Your task to perform on an android device: Go to CNN.com Image 0: 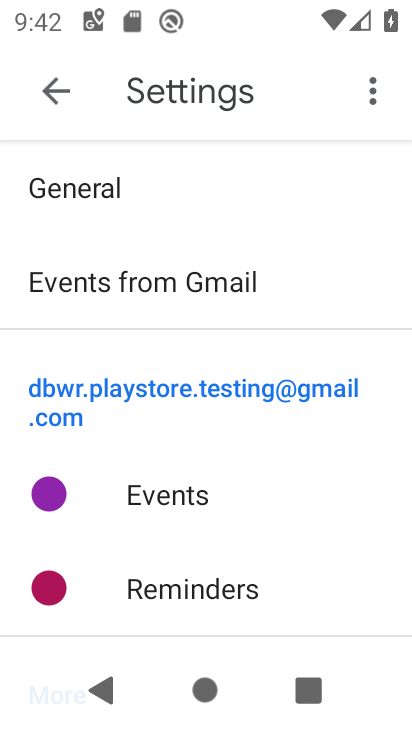
Step 0: press home button
Your task to perform on an android device: Go to CNN.com Image 1: 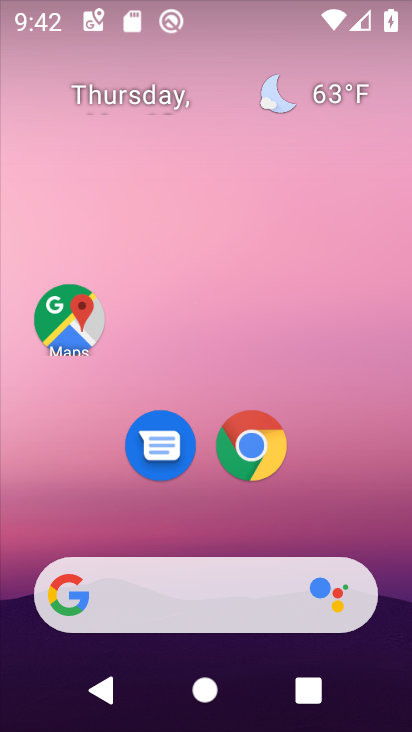
Step 1: drag from (320, 530) to (320, 163)
Your task to perform on an android device: Go to CNN.com Image 2: 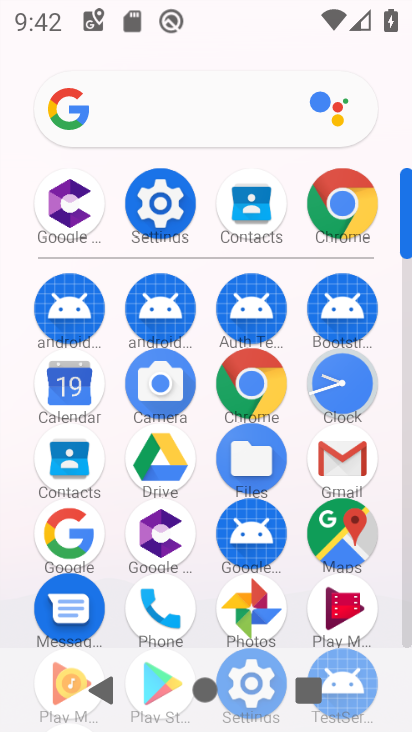
Step 2: click (251, 388)
Your task to perform on an android device: Go to CNN.com Image 3: 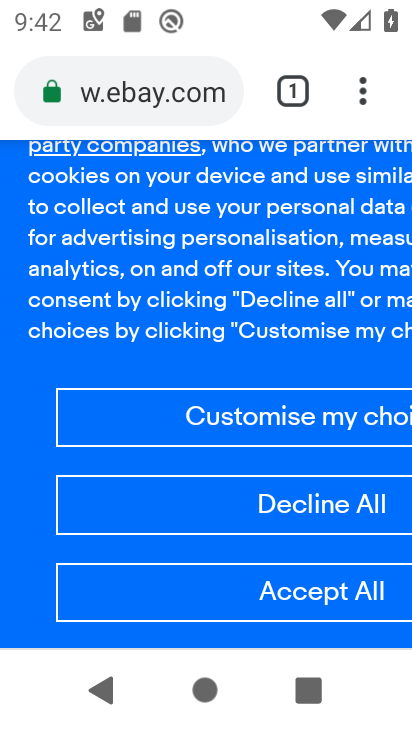
Step 3: click (299, 85)
Your task to perform on an android device: Go to CNN.com Image 4: 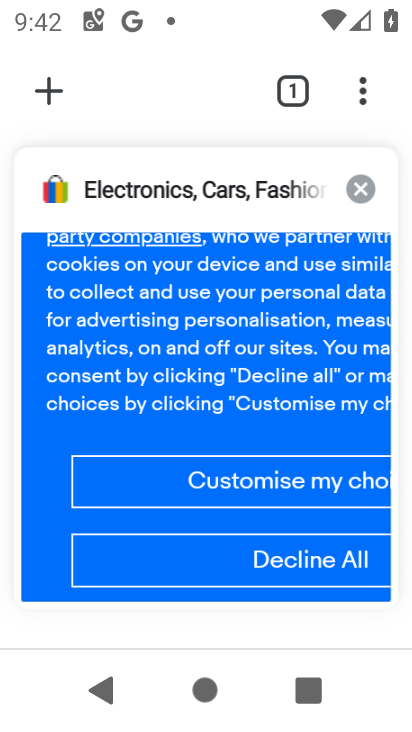
Step 4: click (38, 84)
Your task to perform on an android device: Go to CNN.com Image 5: 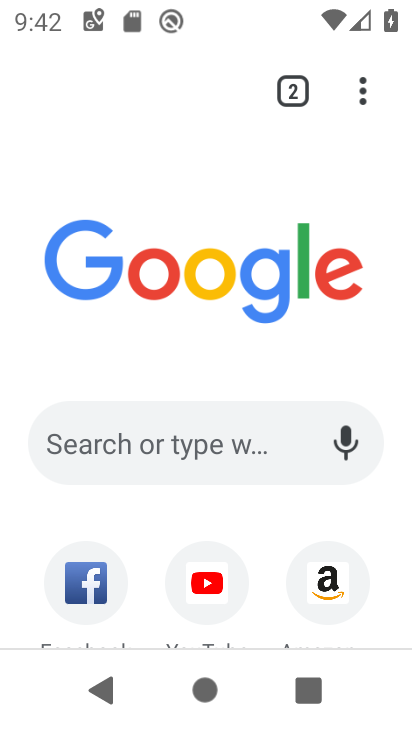
Step 5: click (237, 461)
Your task to perform on an android device: Go to CNN.com Image 6: 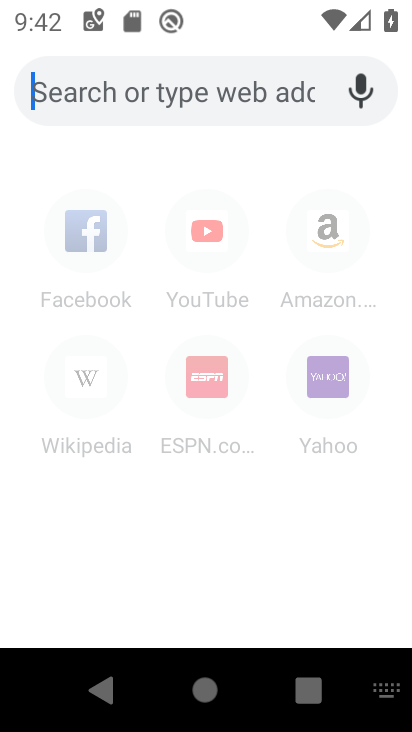
Step 6: type "CNN.com"
Your task to perform on an android device: Go to CNN.com Image 7: 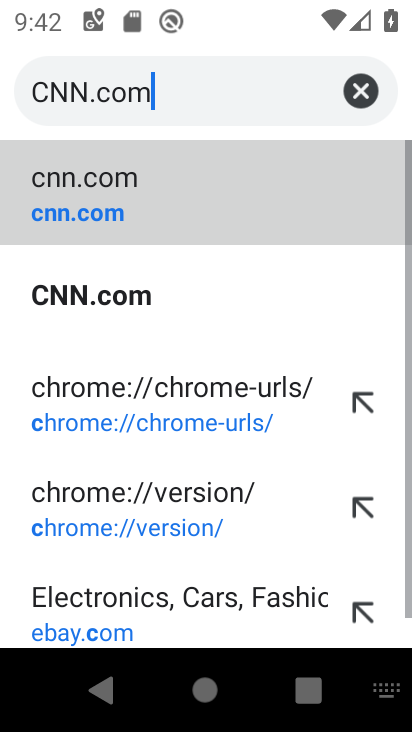
Step 7: type ""
Your task to perform on an android device: Go to CNN.com Image 8: 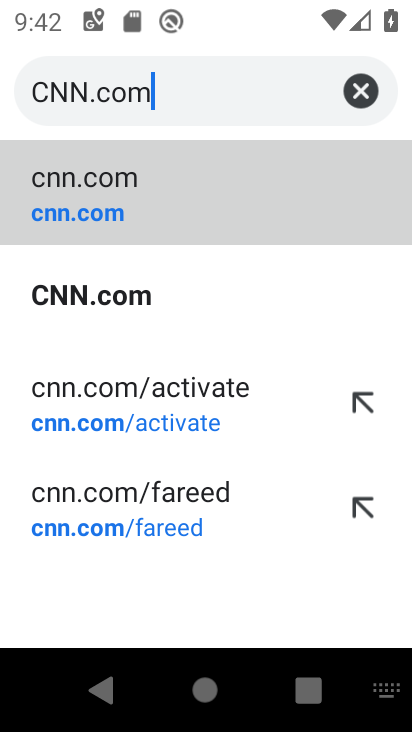
Step 8: click (153, 175)
Your task to perform on an android device: Go to CNN.com Image 9: 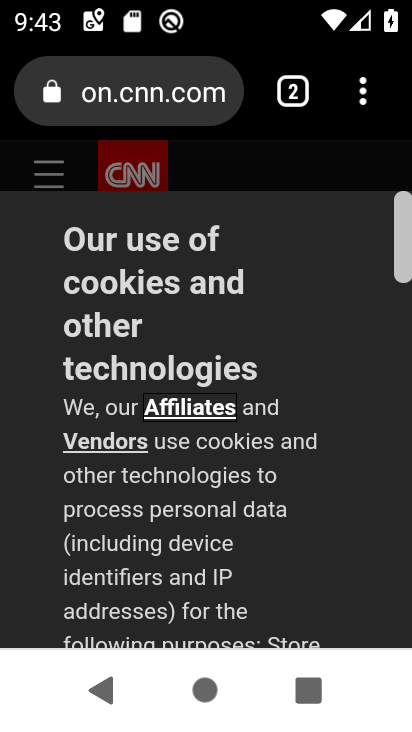
Step 9: task complete